Your task to perform on an android device: When is my next meeting? Image 0: 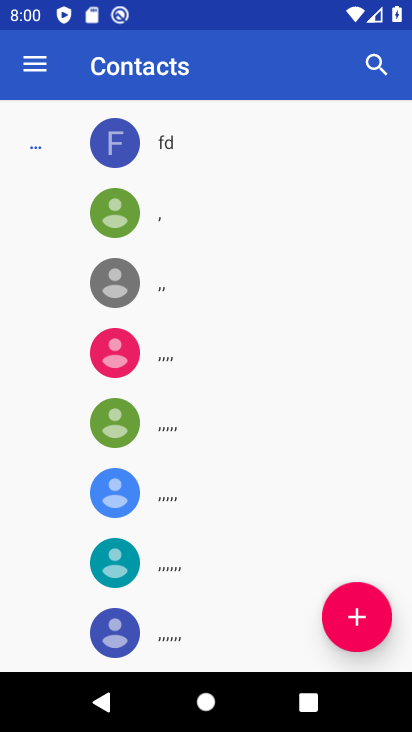
Step 0: press home button
Your task to perform on an android device: When is my next meeting? Image 1: 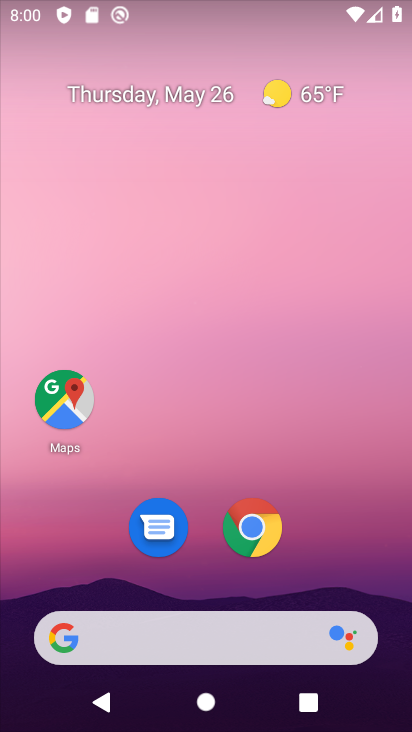
Step 1: drag from (357, 515) to (407, 148)
Your task to perform on an android device: When is my next meeting? Image 2: 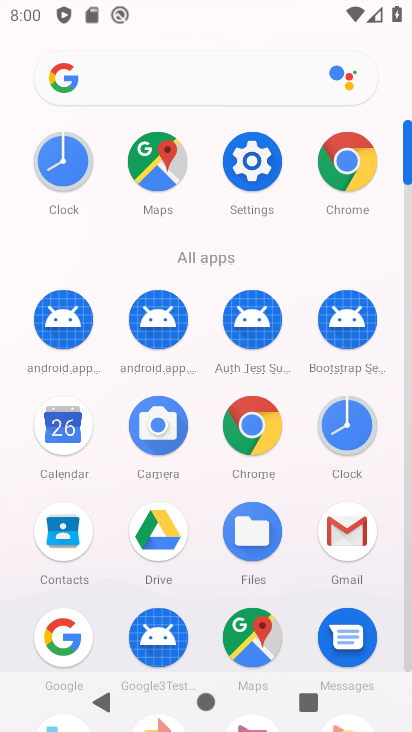
Step 2: click (68, 438)
Your task to perform on an android device: When is my next meeting? Image 3: 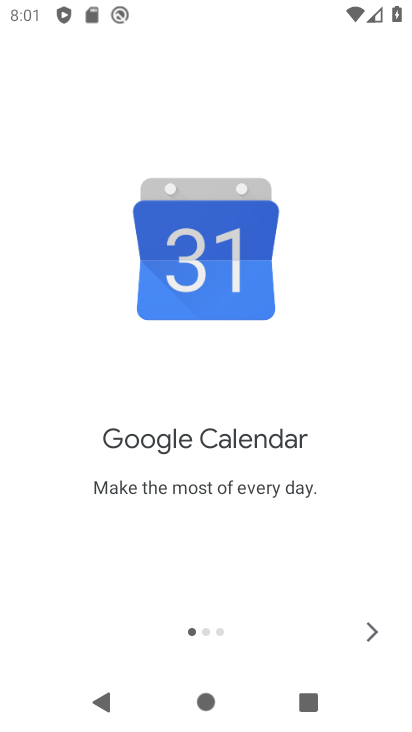
Step 3: click (374, 627)
Your task to perform on an android device: When is my next meeting? Image 4: 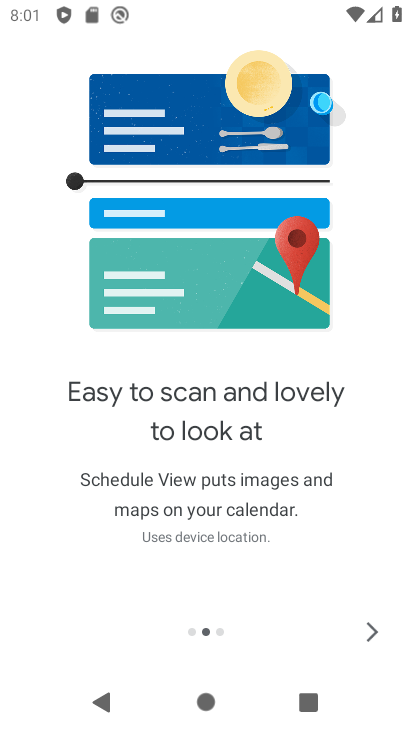
Step 4: click (374, 626)
Your task to perform on an android device: When is my next meeting? Image 5: 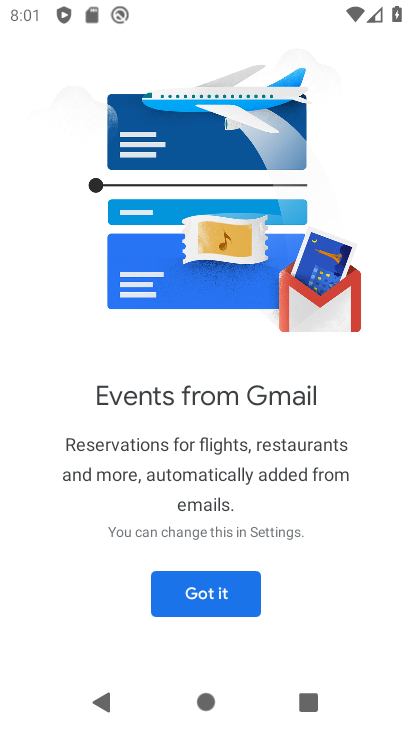
Step 5: click (222, 588)
Your task to perform on an android device: When is my next meeting? Image 6: 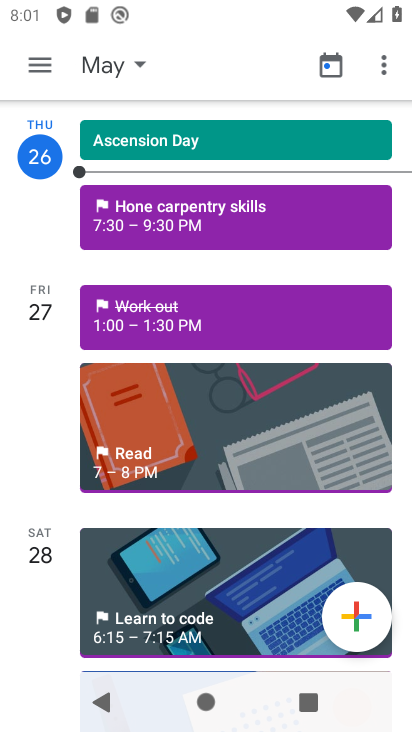
Step 6: click (100, 72)
Your task to perform on an android device: When is my next meeting? Image 7: 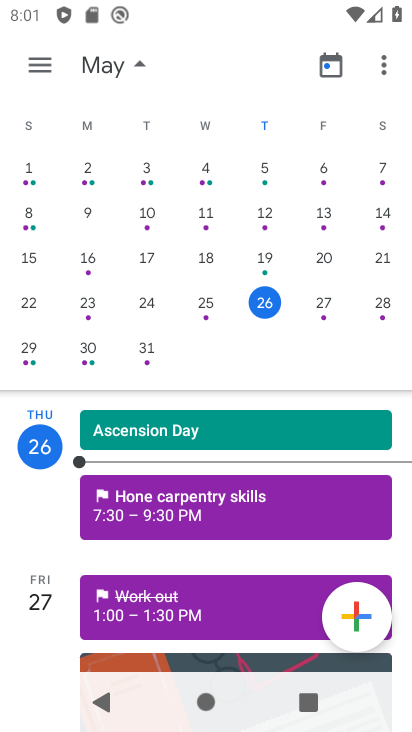
Step 7: click (322, 303)
Your task to perform on an android device: When is my next meeting? Image 8: 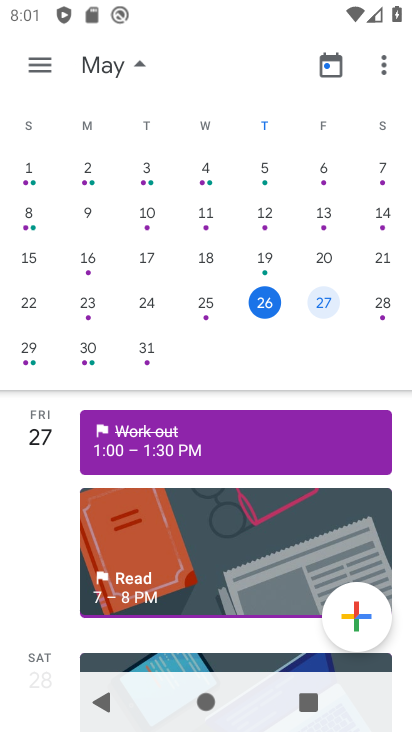
Step 8: task complete